Your task to perform on an android device: Open internet settings Image 0: 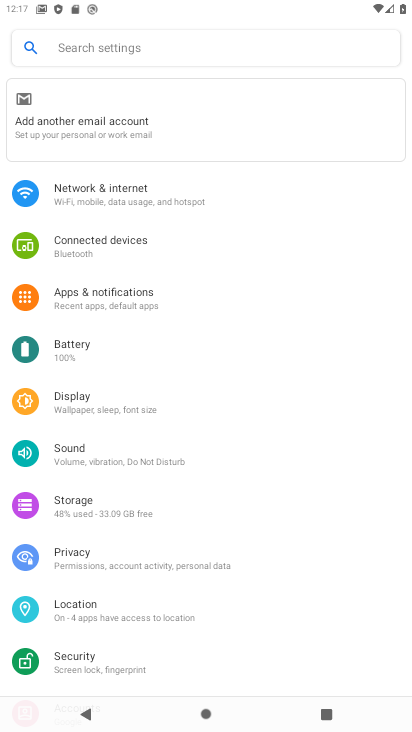
Step 0: click (184, 197)
Your task to perform on an android device: Open internet settings Image 1: 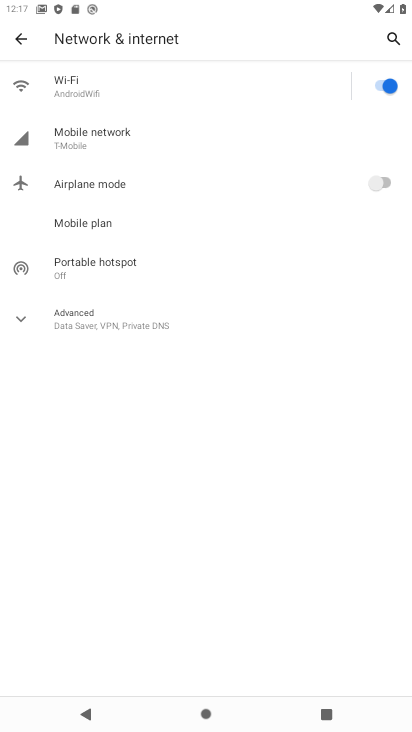
Step 1: task complete